Your task to perform on an android device: open chrome privacy settings Image 0: 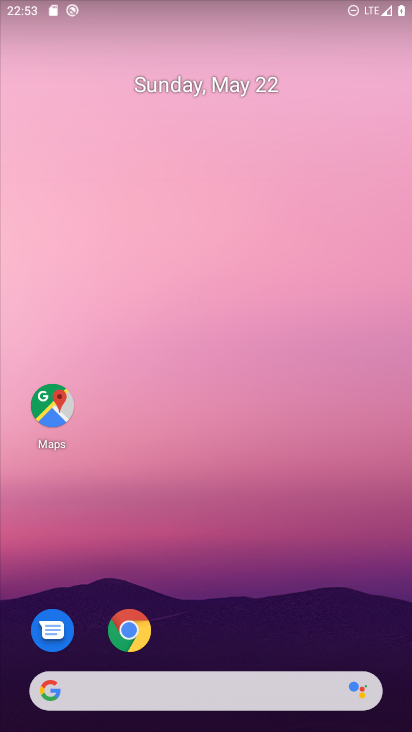
Step 0: click (135, 635)
Your task to perform on an android device: open chrome privacy settings Image 1: 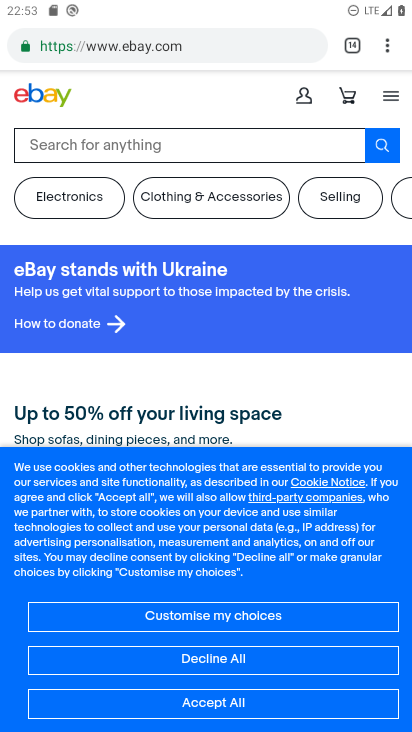
Step 1: drag from (385, 47) to (231, 547)
Your task to perform on an android device: open chrome privacy settings Image 2: 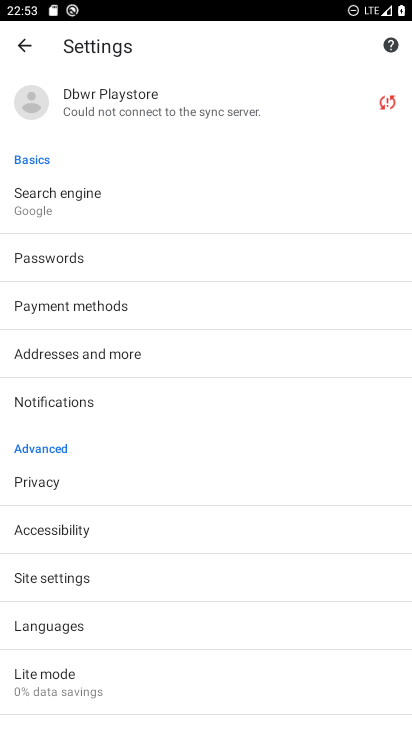
Step 2: click (52, 486)
Your task to perform on an android device: open chrome privacy settings Image 3: 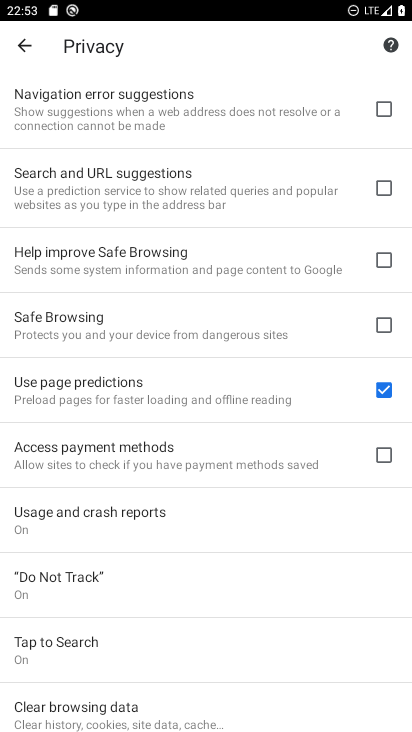
Step 3: task complete